Your task to perform on an android device: change the clock display to analog Image 0: 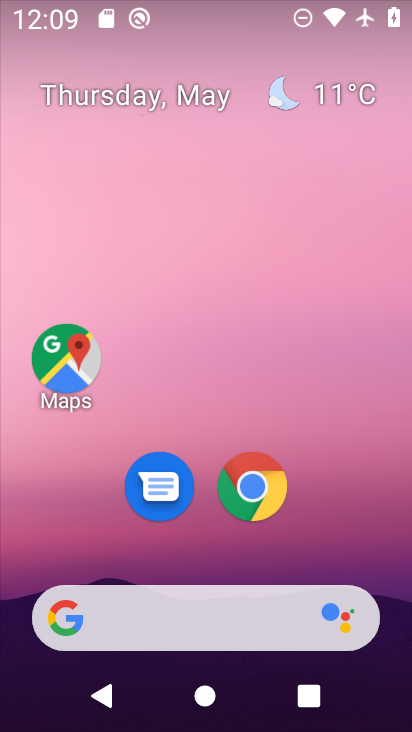
Step 0: drag from (326, 532) to (271, 15)
Your task to perform on an android device: change the clock display to analog Image 1: 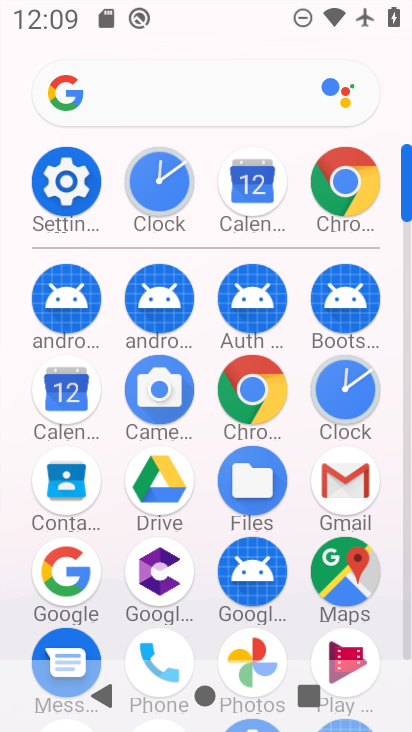
Step 1: drag from (17, 587) to (24, 262)
Your task to perform on an android device: change the clock display to analog Image 2: 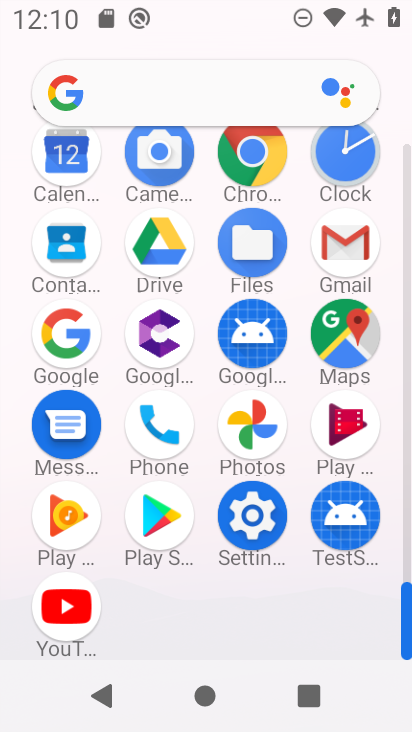
Step 2: click (349, 149)
Your task to perform on an android device: change the clock display to analog Image 3: 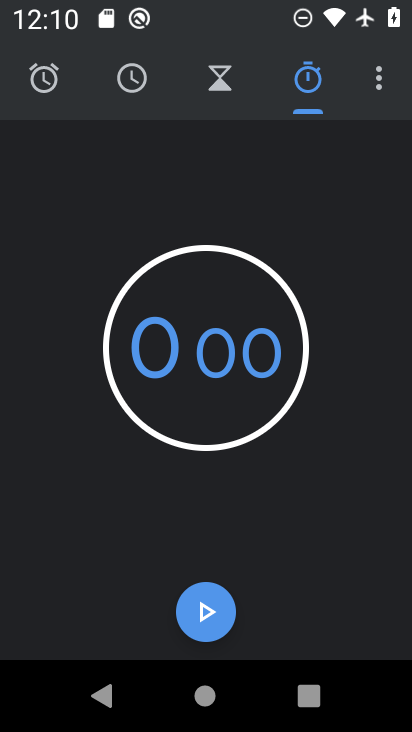
Step 3: task complete